Your task to perform on an android device: Toggle the flashlight Image 0: 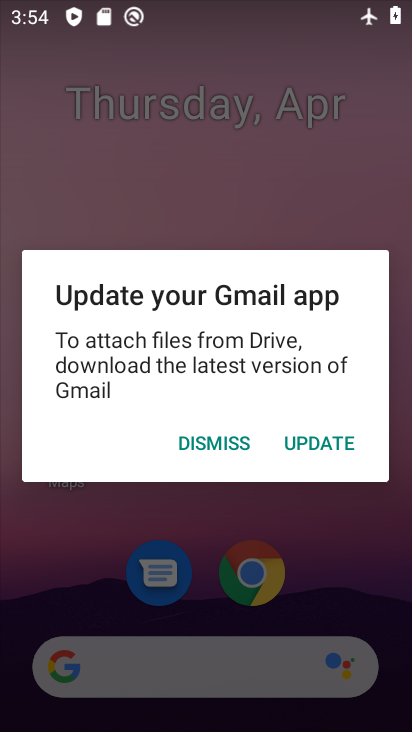
Step 0: press home button
Your task to perform on an android device: Toggle the flashlight Image 1: 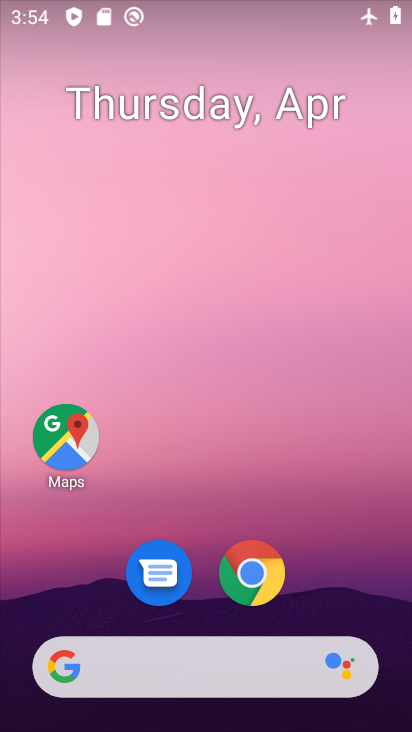
Step 1: drag from (360, 598) to (262, 61)
Your task to perform on an android device: Toggle the flashlight Image 2: 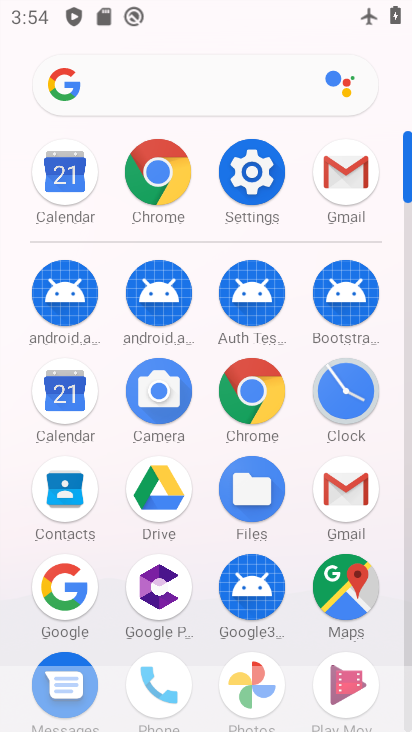
Step 2: click (249, 179)
Your task to perform on an android device: Toggle the flashlight Image 3: 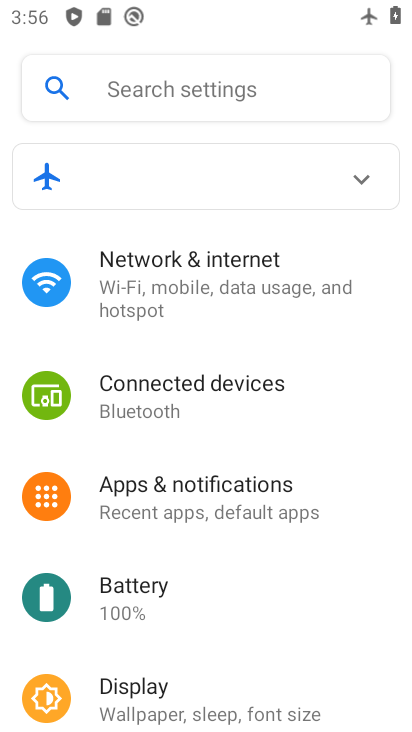
Step 3: task complete